Your task to perform on an android device: Open the stopwatch Image 0: 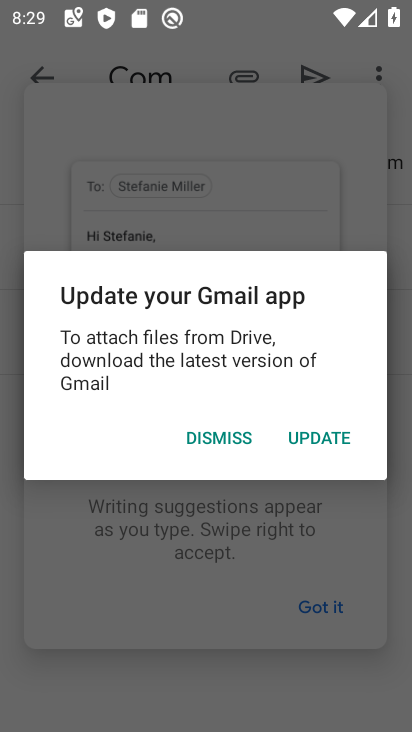
Step 0: press home button
Your task to perform on an android device: Open the stopwatch Image 1: 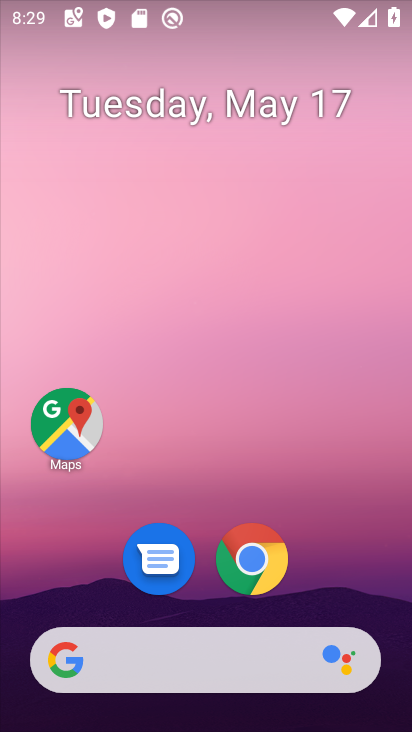
Step 1: drag from (190, 724) to (197, 96)
Your task to perform on an android device: Open the stopwatch Image 2: 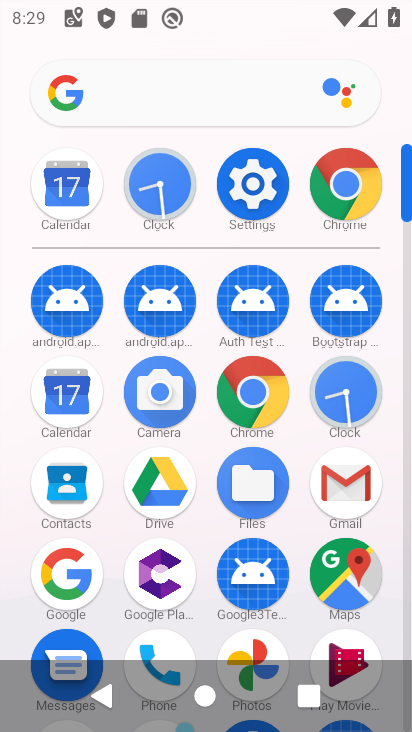
Step 2: click (352, 377)
Your task to perform on an android device: Open the stopwatch Image 3: 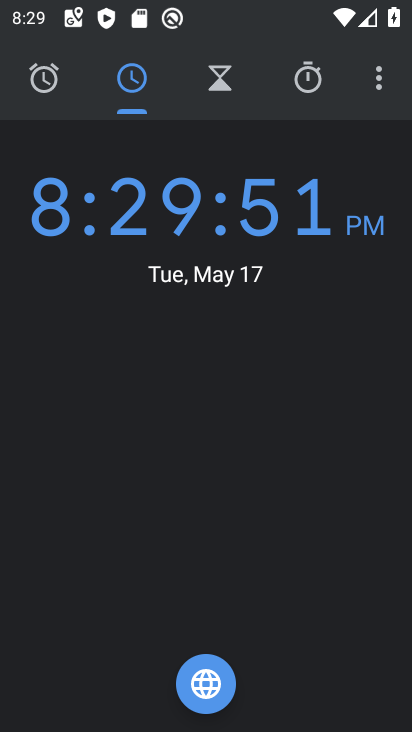
Step 3: click (389, 76)
Your task to perform on an android device: Open the stopwatch Image 4: 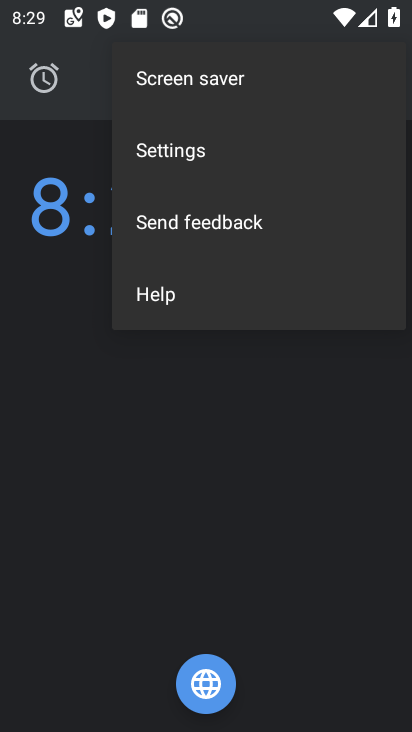
Step 4: click (114, 436)
Your task to perform on an android device: Open the stopwatch Image 5: 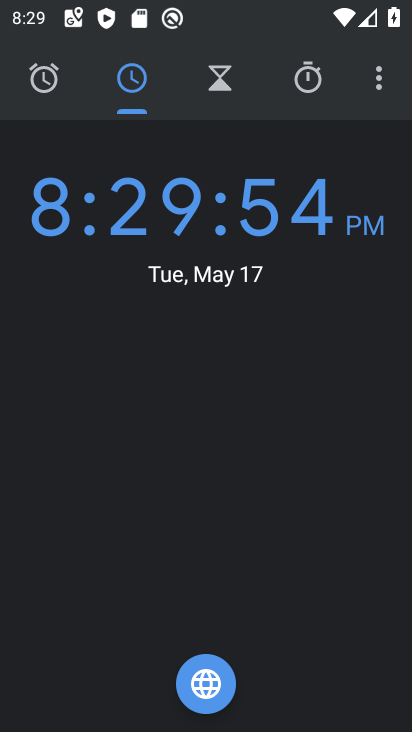
Step 5: click (329, 74)
Your task to perform on an android device: Open the stopwatch Image 6: 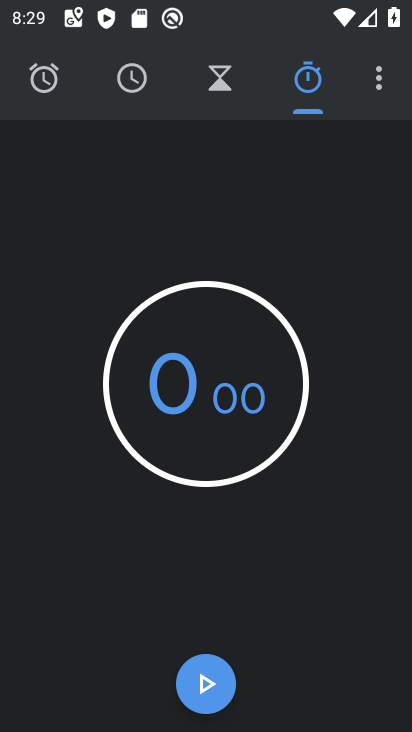
Step 6: task complete